Your task to perform on an android device: check the backup settings in the google photos Image 0: 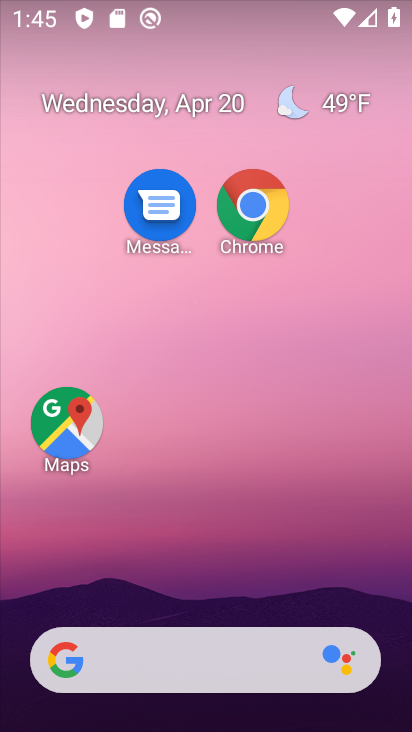
Step 0: drag from (187, 616) to (225, 275)
Your task to perform on an android device: check the backup settings in the google photos Image 1: 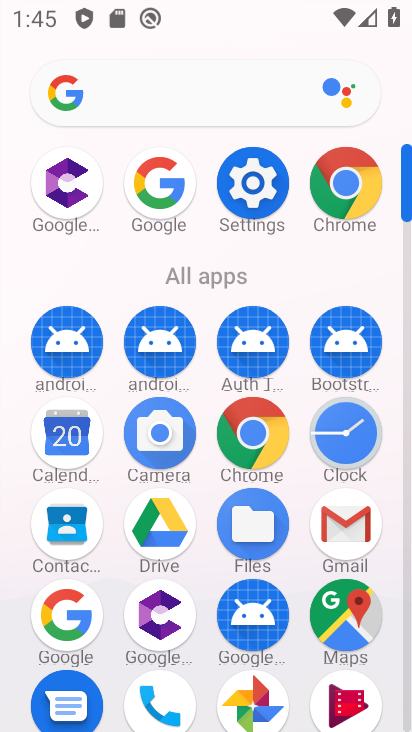
Step 1: click (247, 692)
Your task to perform on an android device: check the backup settings in the google photos Image 2: 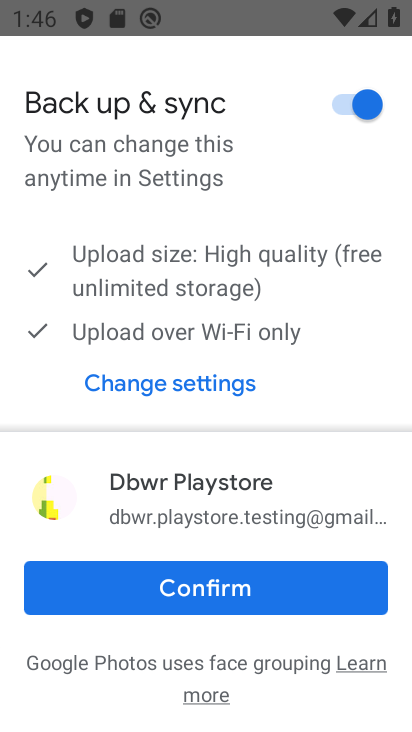
Step 2: click (210, 589)
Your task to perform on an android device: check the backup settings in the google photos Image 3: 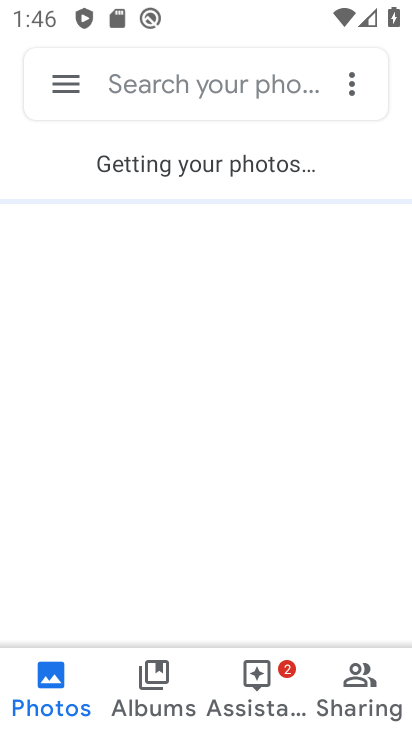
Step 3: click (51, 88)
Your task to perform on an android device: check the backup settings in the google photos Image 4: 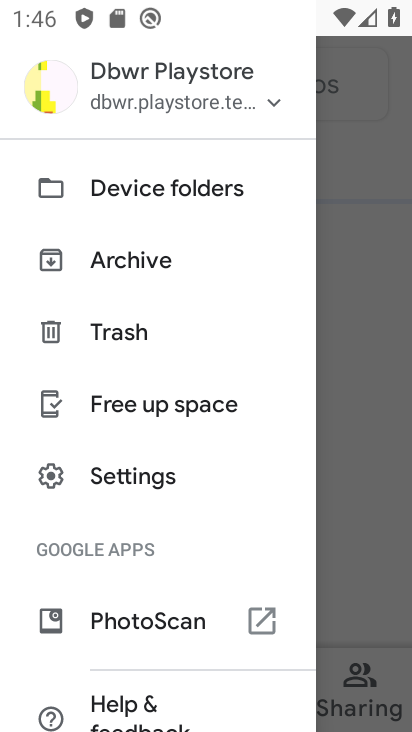
Step 4: click (128, 471)
Your task to perform on an android device: check the backup settings in the google photos Image 5: 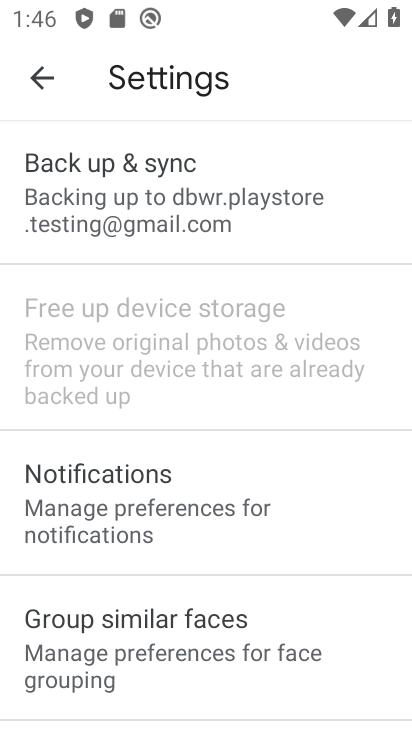
Step 5: click (155, 154)
Your task to perform on an android device: check the backup settings in the google photos Image 6: 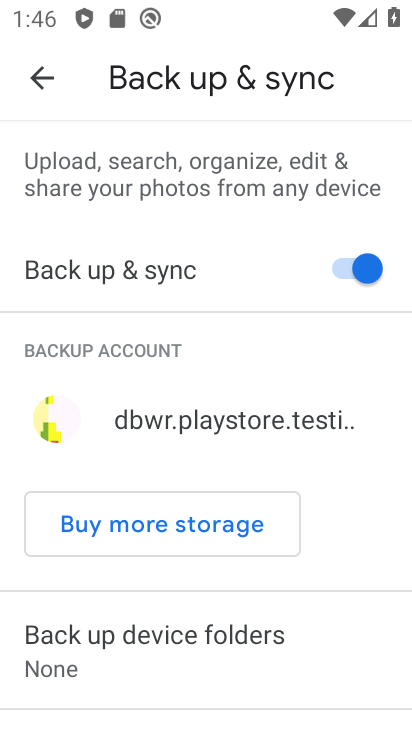
Step 6: task complete